Your task to perform on an android device: turn on notifications settings in the gmail app Image 0: 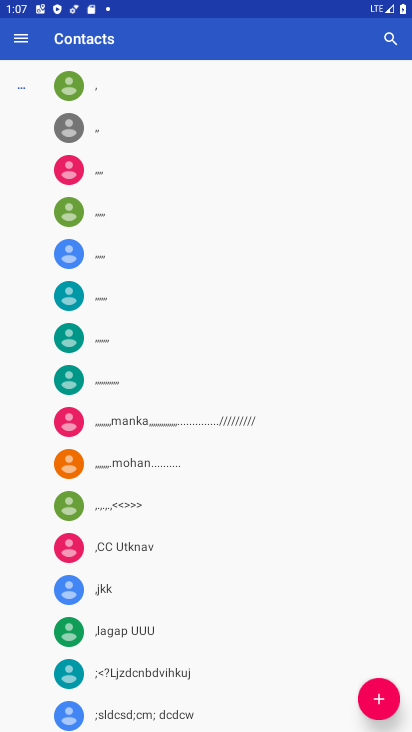
Step 0: press home button
Your task to perform on an android device: turn on notifications settings in the gmail app Image 1: 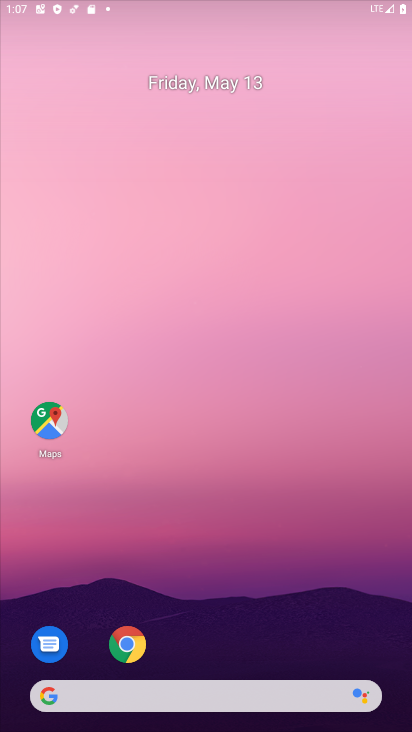
Step 1: drag from (344, 627) to (317, 65)
Your task to perform on an android device: turn on notifications settings in the gmail app Image 2: 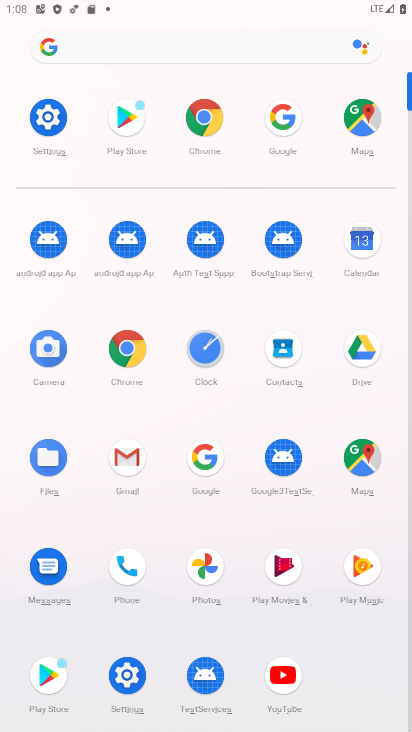
Step 2: click (130, 481)
Your task to perform on an android device: turn on notifications settings in the gmail app Image 3: 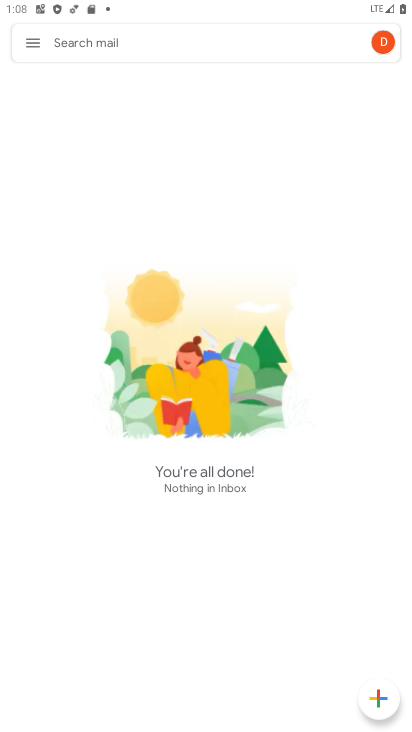
Step 3: click (23, 32)
Your task to perform on an android device: turn on notifications settings in the gmail app Image 4: 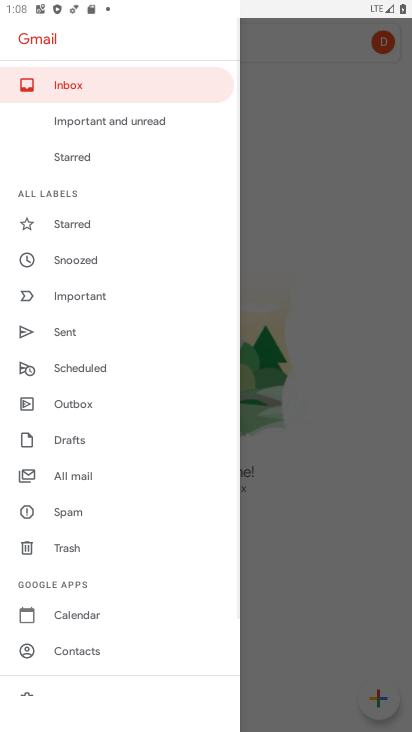
Step 4: drag from (112, 617) to (195, 254)
Your task to perform on an android device: turn on notifications settings in the gmail app Image 5: 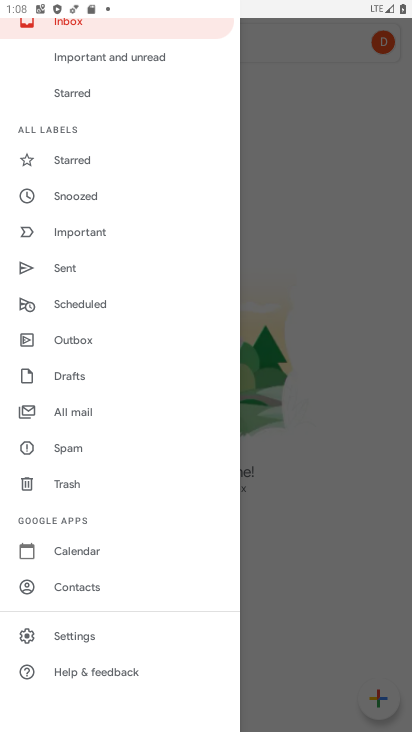
Step 5: click (79, 646)
Your task to perform on an android device: turn on notifications settings in the gmail app Image 6: 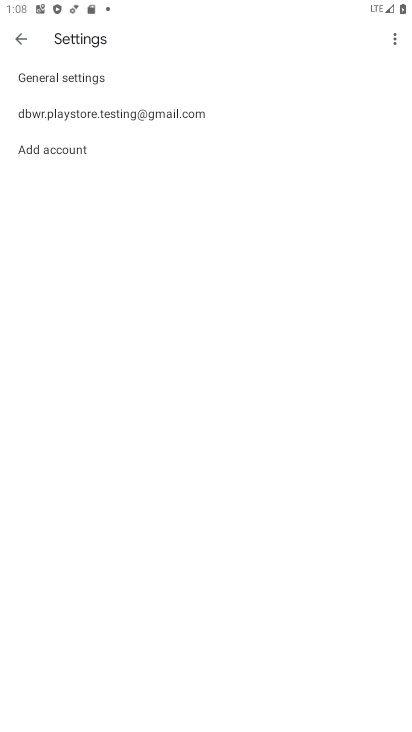
Step 6: click (196, 123)
Your task to perform on an android device: turn on notifications settings in the gmail app Image 7: 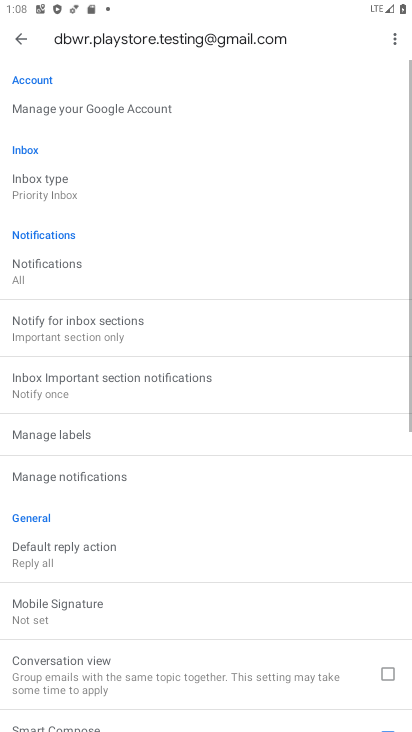
Step 7: click (114, 293)
Your task to perform on an android device: turn on notifications settings in the gmail app Image 8: 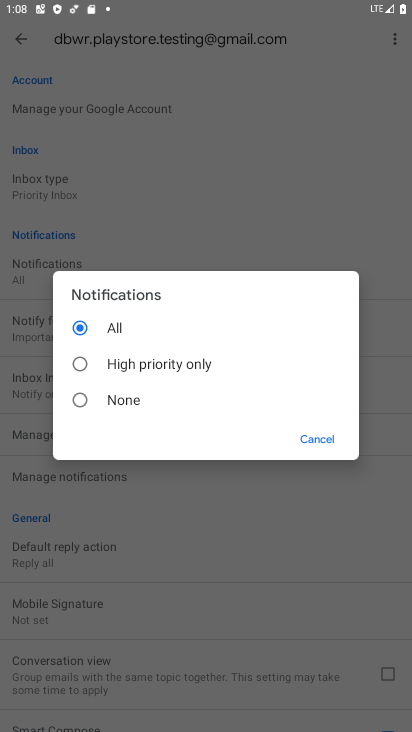
Step 8: task complete